Your task to perform on an android device: find photos in the google photos app Image 0: 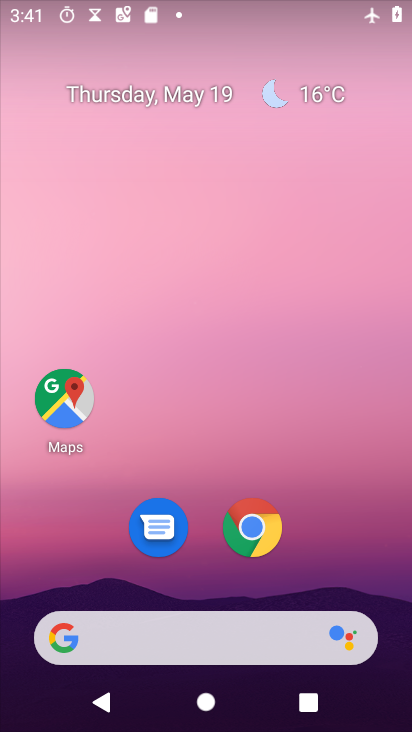
Step 0: drag from (370, 555) to (246, 98)
Your task to perform on an android device: find photos in the google photos app Image 1: 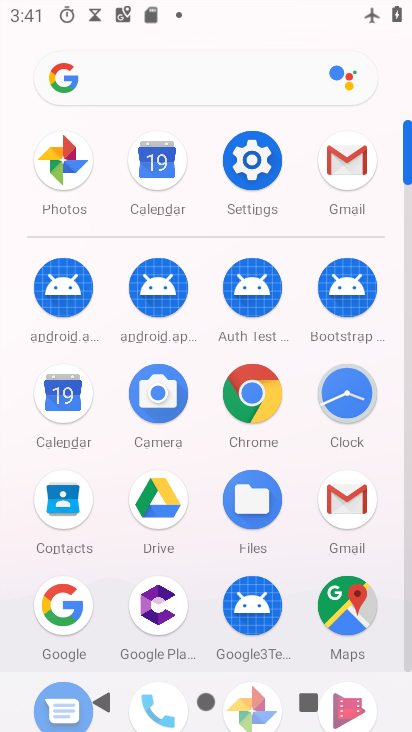
Step 1: drag from (320, 607) to (262, 187)
Your task to perform on an android device: find photos in the google photos app Image 2: 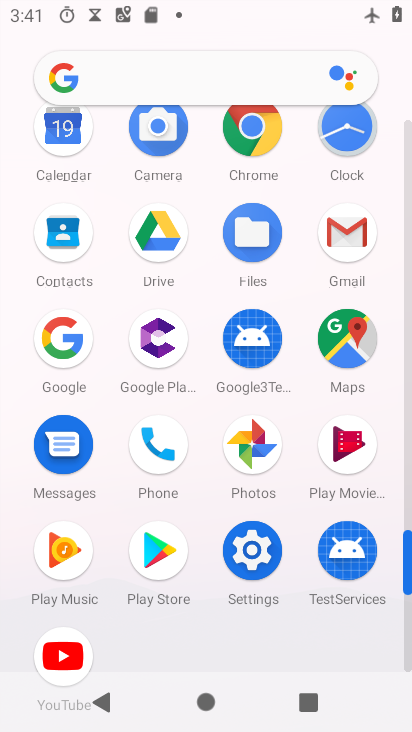
Step 2: click (267, 443)
Your task to perform on an android device: find photos in the google photos app Image 3: 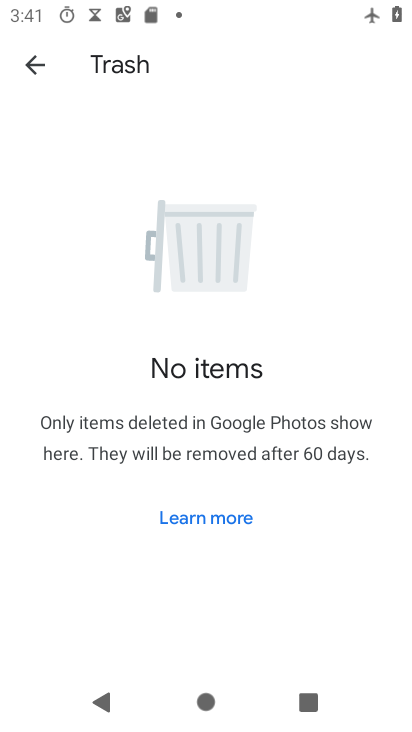
Step 3: click (21, 47)
Your task to perform on an android device: find photos in the google photos app Image 4: 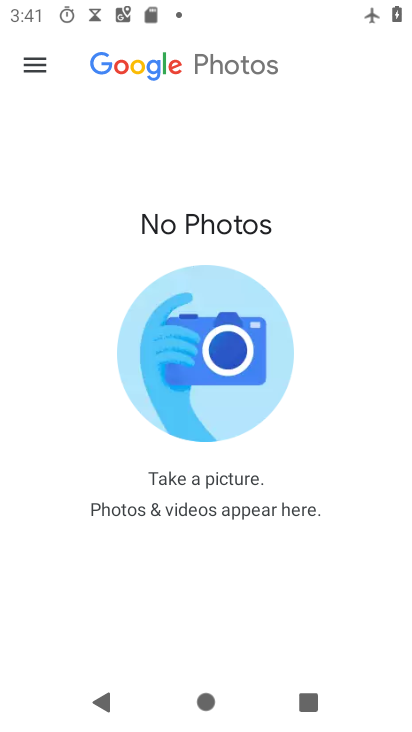
Step 4: click (34, 63)
Your task to perform on an android device: find photos in the google photos app Image 5: 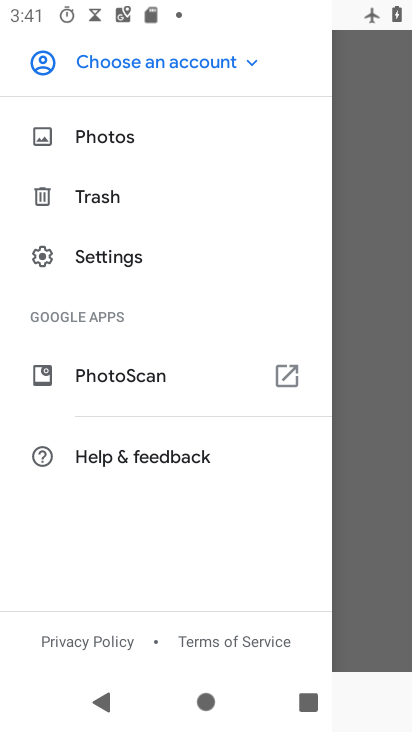
Step 5: click (140, 139)
Your task to perform on an android device: find photos in the google photos app Image 6: 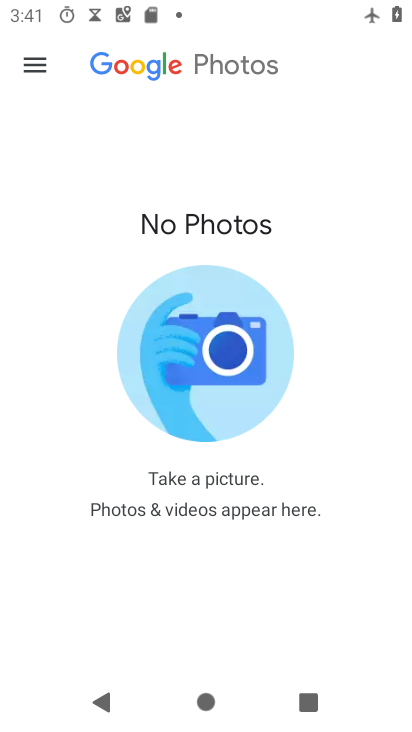
Step 6: task complete